Your task to perform on an android device: open sync settings in chrome Image 0: 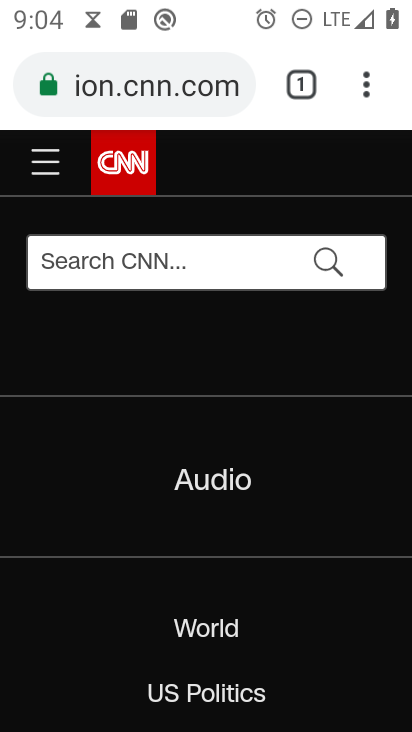
Step 0: press home button
Your task to perform on an android device: open sync settings in chrome Image 1: 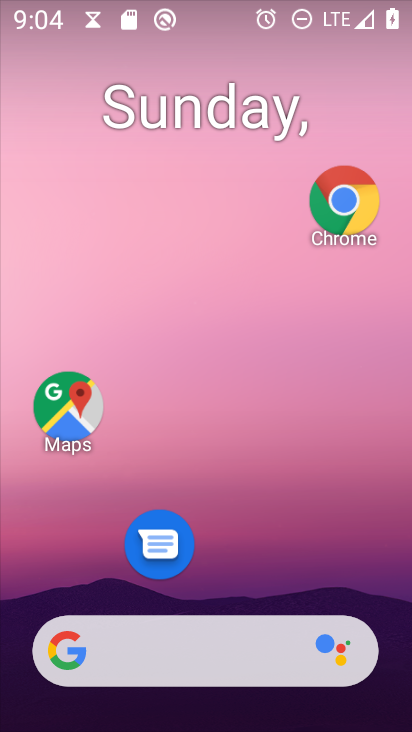
Step 1: click (336, 197)
Your task to perform on an android device: open sync settings in chrome Image 2: 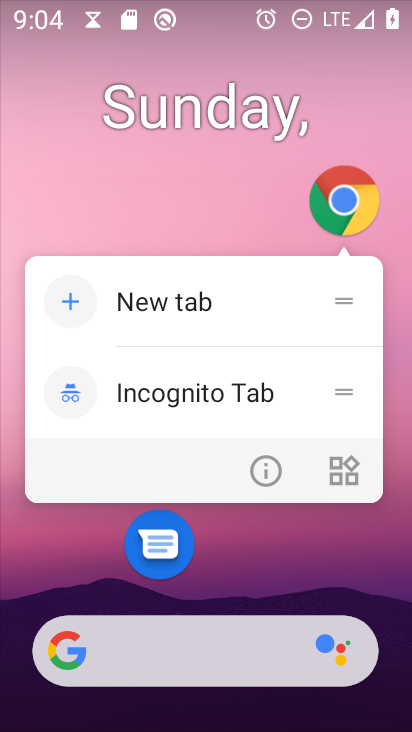
Step 2: click (336, 197)
Your task to perform on an android device: open sync settings in chrome Image 3: 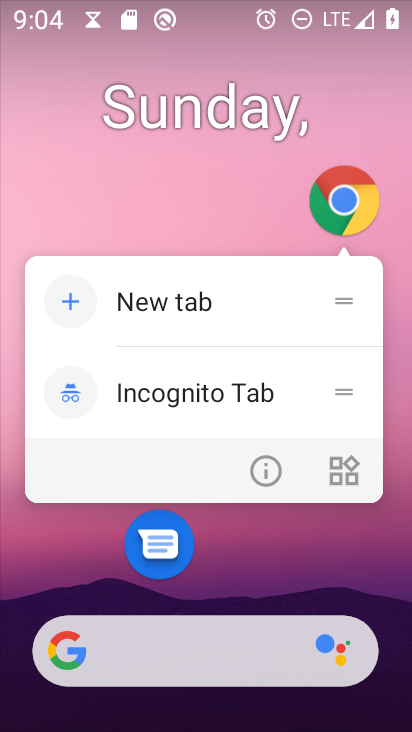
Step 3: click (336, 199)
Your task to perform on an android device: open sync settings in chrome Image 4: 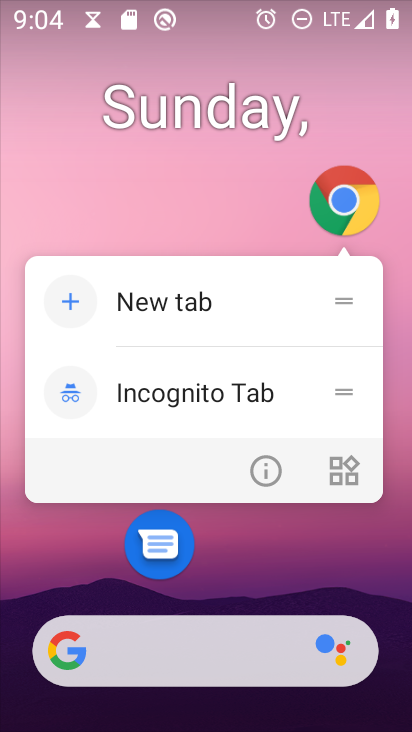
Step 4: click (347, 205)
Your task to perform on an android device: open sync settings in chrome Image 5: 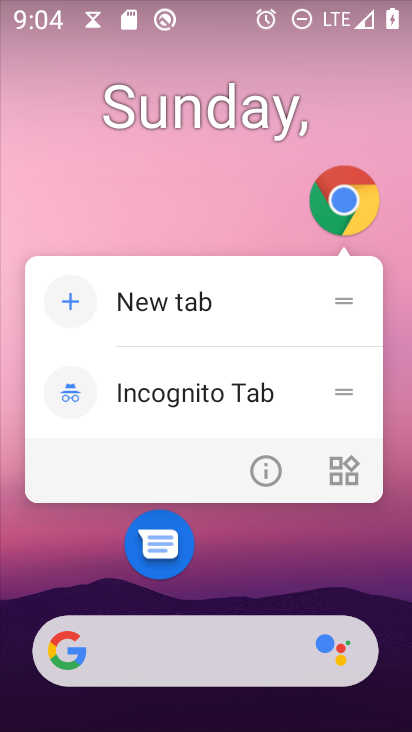
Step 5: click (357, 200)
Your task to perform on an android device: open sync settings in chrome Image 6: 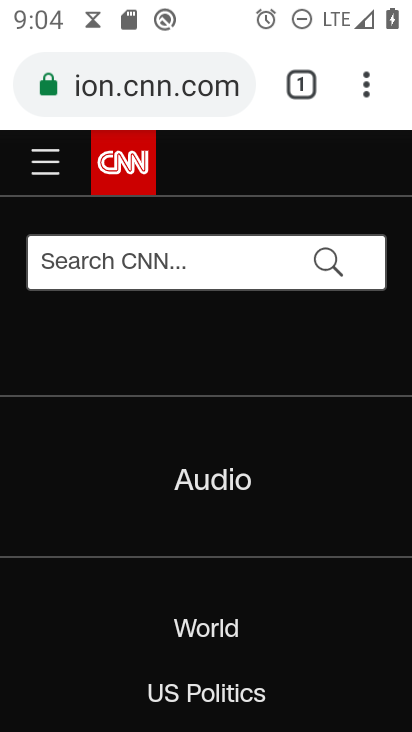
Step 6: click (363, 88)
Your task to perform on an android device: open sync settings in chrome Image 7: 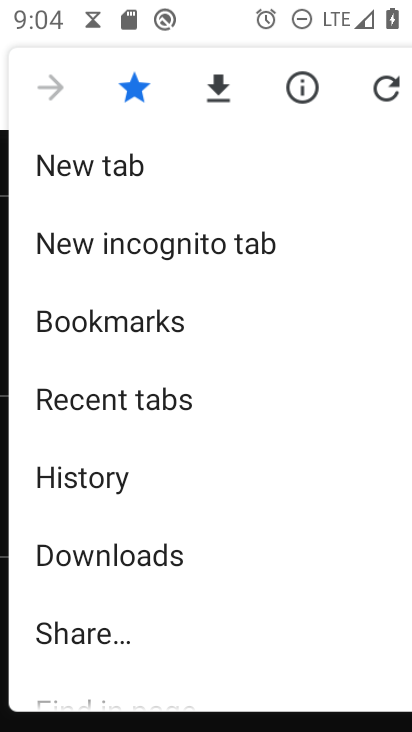
Step 7: drag from (141, 604) to (133, 312)
Your task to perform on an android device: open sync settings in chrome Image 8: 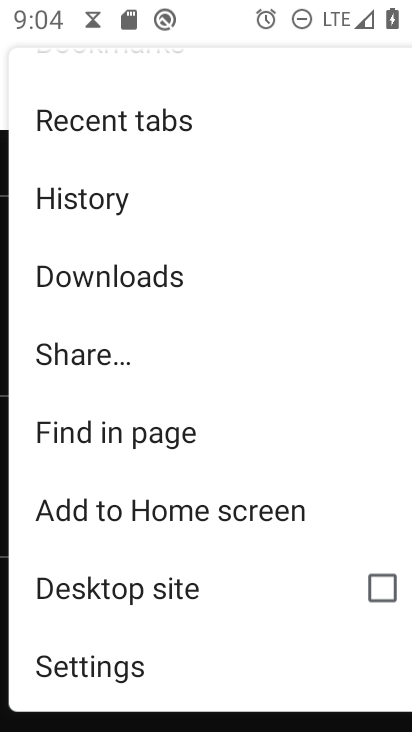
Step 8: click (115, 669)
Your task to perform on an android device: open sync settings in chrome Image 9: 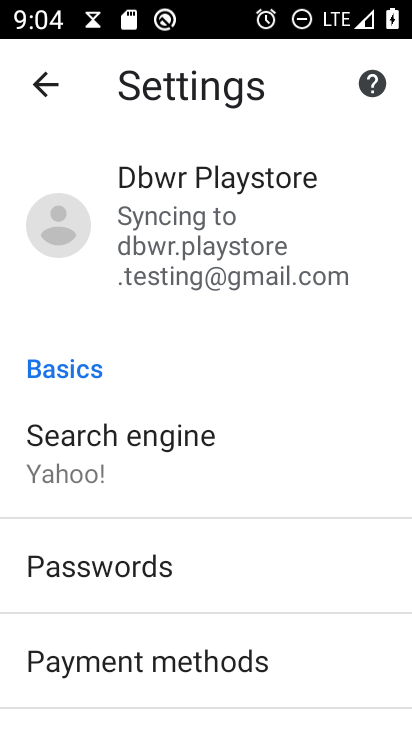
Step 9: click (213, 253)
Your task to perform on an android device: open sync settings in chrome Image 10: 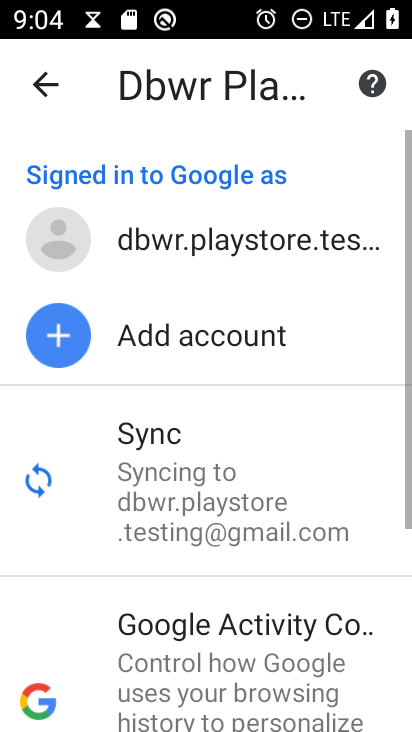
Step 10: click (178, 531)
Your task to perform on an android device: open sync settings in chrome Image 11: 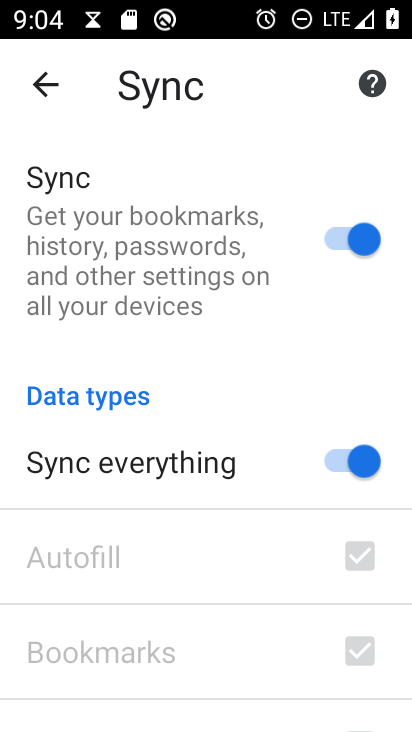
Step 11: task complete